Your task to perform on an android device: turn on improve location accuracy Image 0: 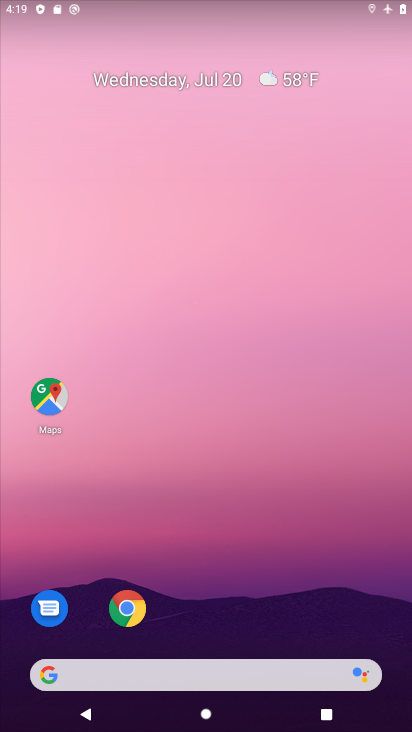
Step 0: drag from (279, 638) to (238, 8)
Your task to perform on an android device: turn on improve location accuracy Image 1: 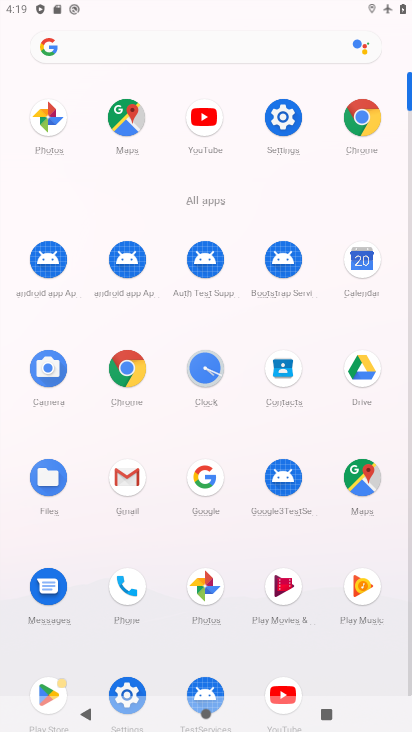
Step 1: click (286, 108)
Your task to perform on an android device: turn on improve location accuracy Image 2: 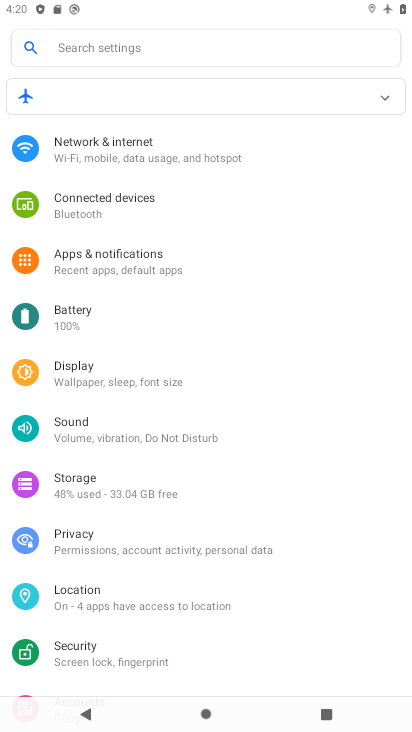
Step 2: click (115, 601)
Your task to perform on an android device: turn on improve location accuracy Image 3: 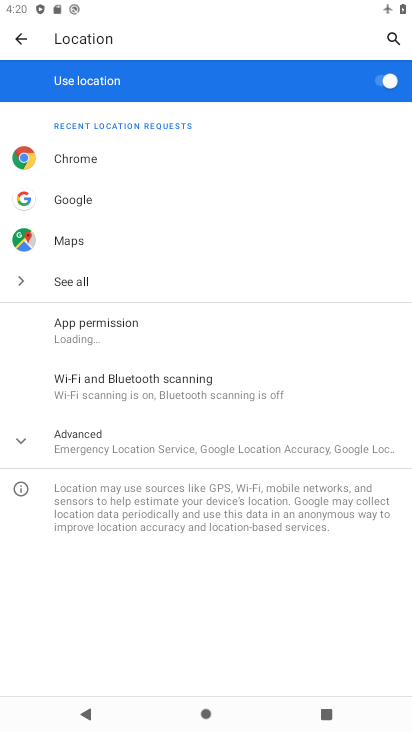
Step 3: click (175, 440)
Your task to perform on an android device: turn on improve location accuracy Image 4: 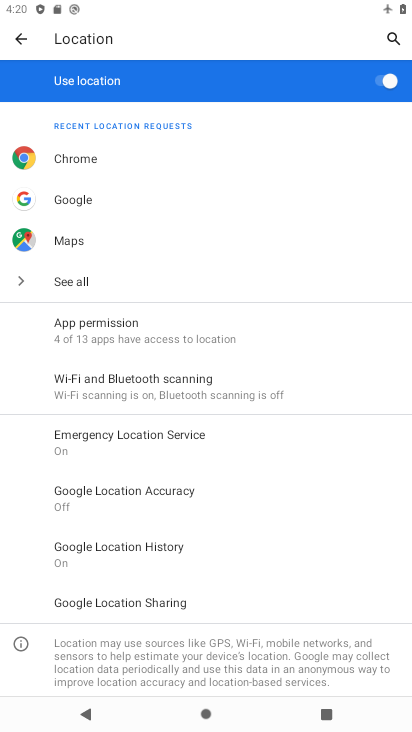
Step 4: click (148, 498)
Your task to perform on an android device: turn on improve location accuracy Image 5: 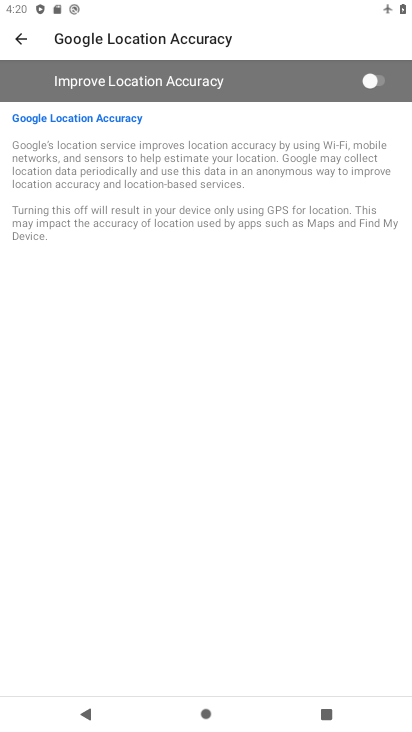
Step 5: click (370, 93)
Your task to perform on an android device: turn on improve location accuracy Image 6: 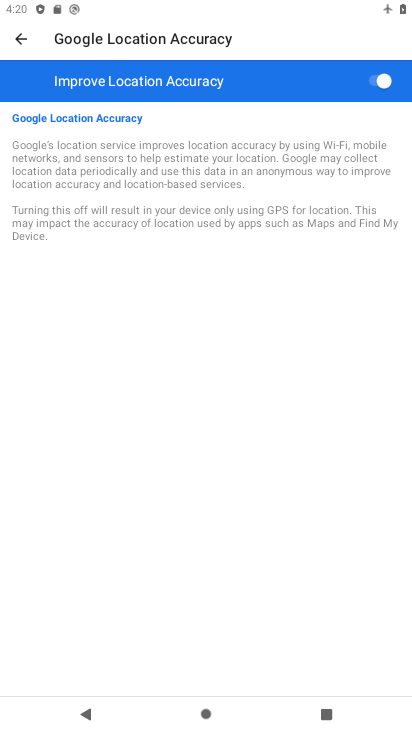
Step 6: task complete